Your task to perform on an android device: Go to notification settings Image 0: 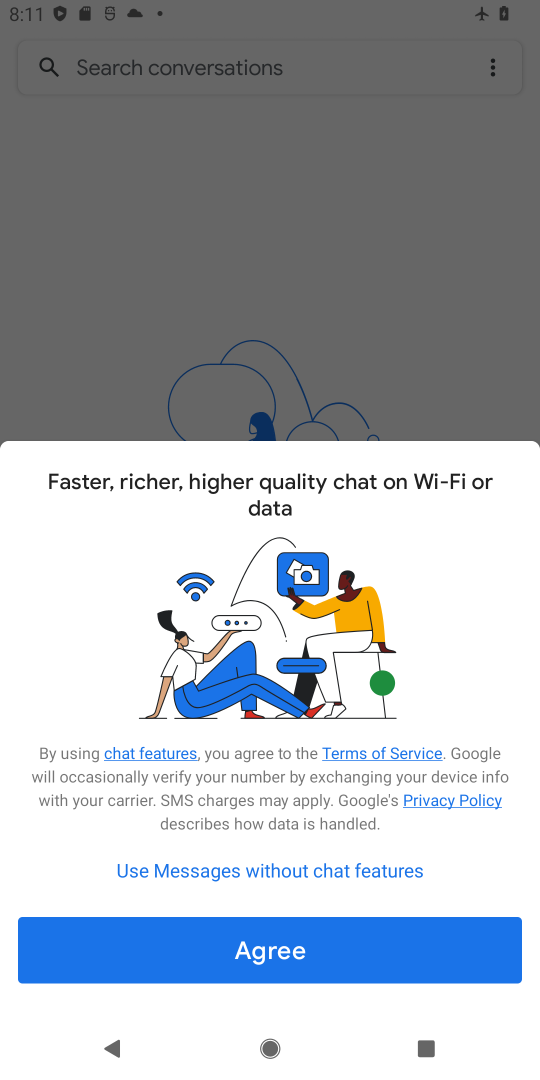
Step 0: press home button
Your task to perform on an android device: Go to notification settings Image 1: 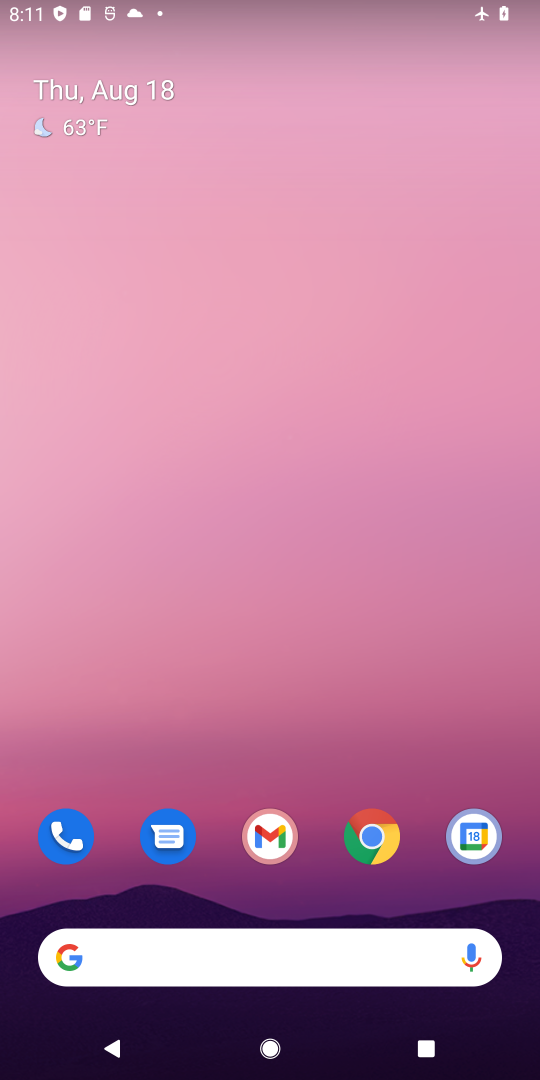
Step 1: drag from (290, 596) to (337, 21)
Your task to perform on an android device: Go to notification settings Image 2: 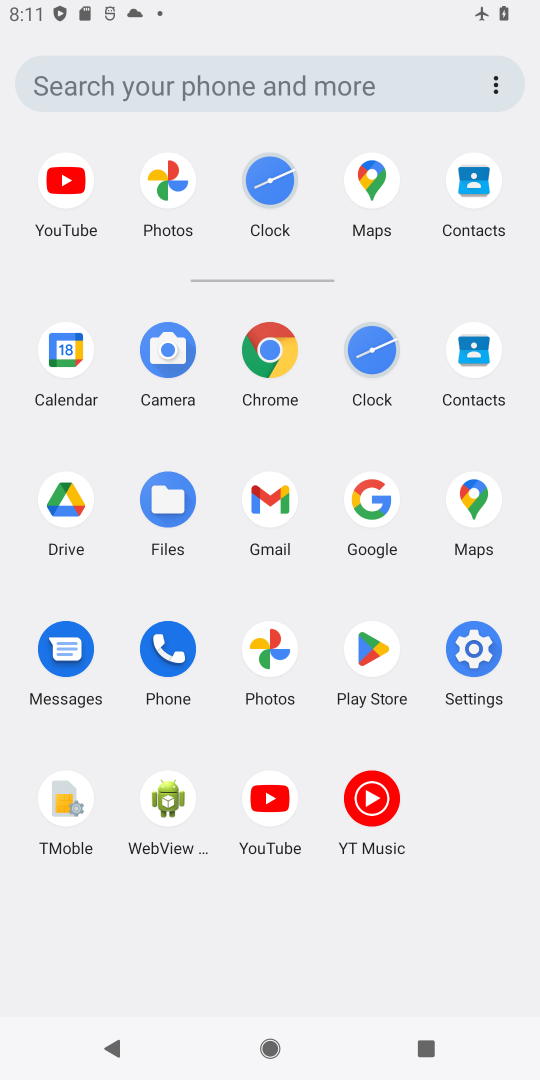
Step 2: click (467, 665)
Your task to perform on an android device: Go to notification settings Image 3: 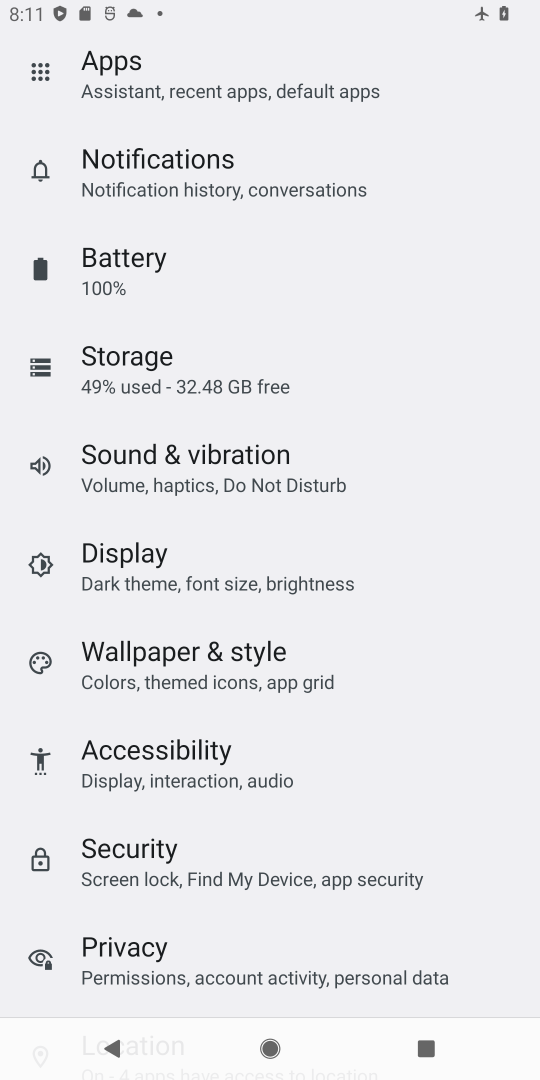
Step 3: click (197, 159)
Your task to perform on an android device: Go to notification settings Image 4: 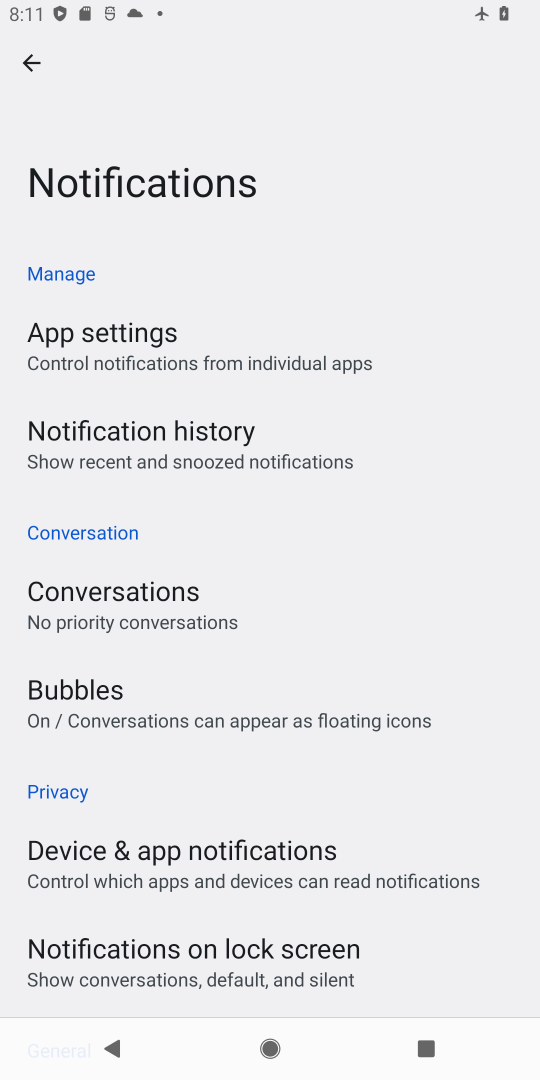
Step 4: task complete